Your task to perform on an android device: Turn off the flashlight Image 0: 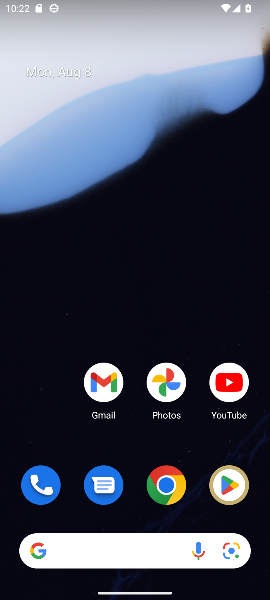
Step 0: drag from (151, 1) to (146, 506)
Your task to perform on an android device: Turn off the flashlight Image 1: 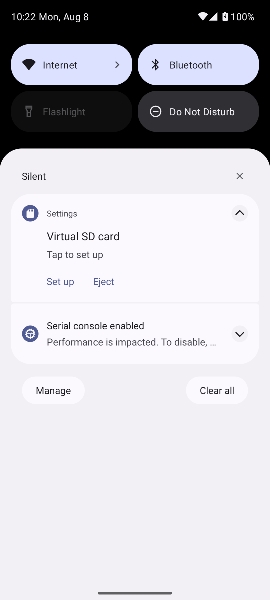
Step 1: click (80, 113)
Your task to perform on an android device: Turn off the flashlight Image 2: 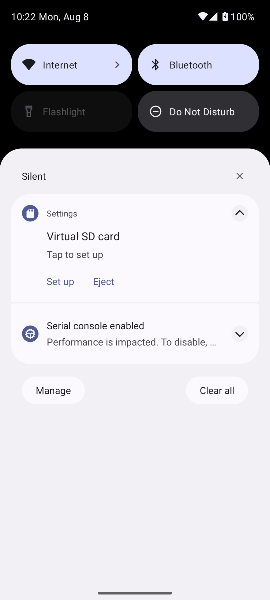
Step 2: task complete